Your task to perform on an android device: toggle sleep mode Image 0: 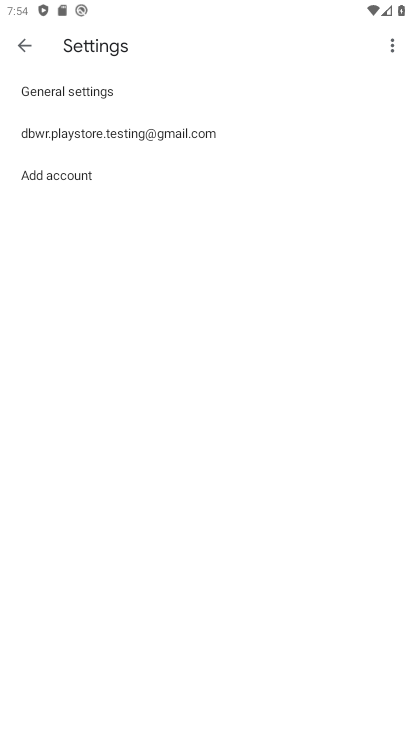
Step 0: press home button
Your task to perform on an android device: toggle sleep mode Image 1: 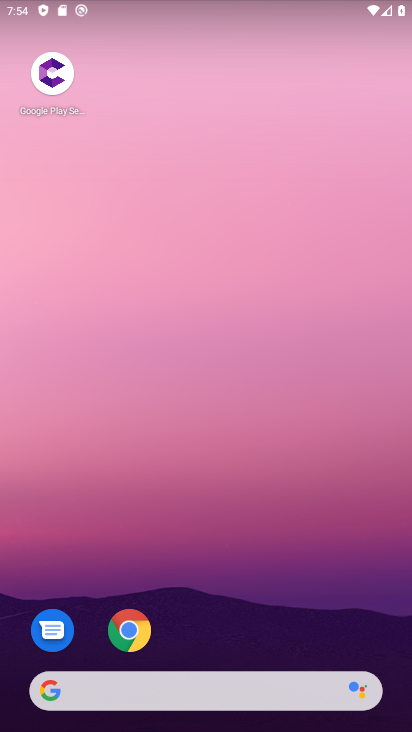
Step 1: drag from (245, 657) to (248, 2)
Your task to perform on an android device: toggle sleep mode Image 2: 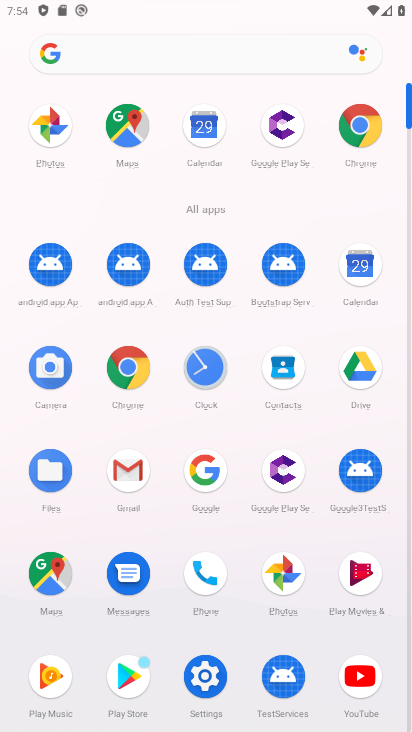
Step 2: click (205, 676)
Your task to perform on an android device: toggle sleep mode Image 3: 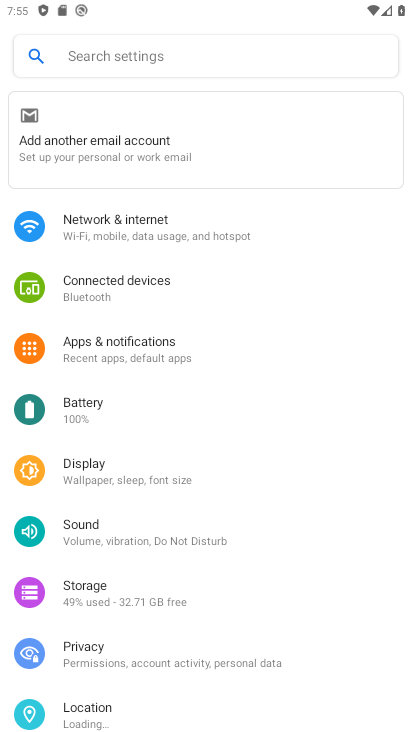
Step 3: click (115, 468)
Your task to perform on an android device: toggle sleep mode Image 4: 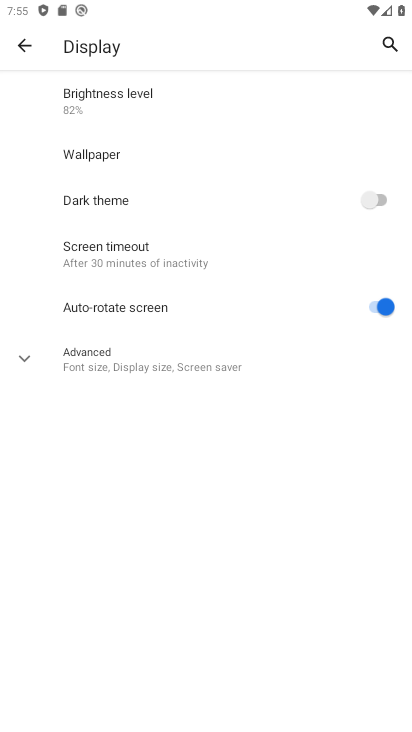
Step 4: task complete